Your task to perform on an android device: Go to privacy settings Image 0: 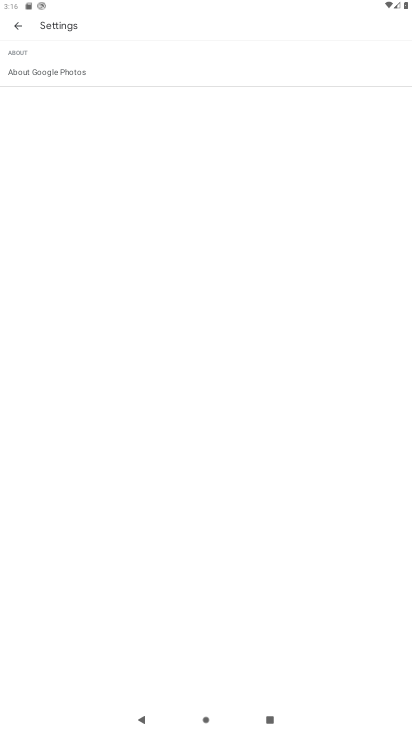
Step 0: press back button
Your task to perform on an android device: Go to privacy settings Image 1: 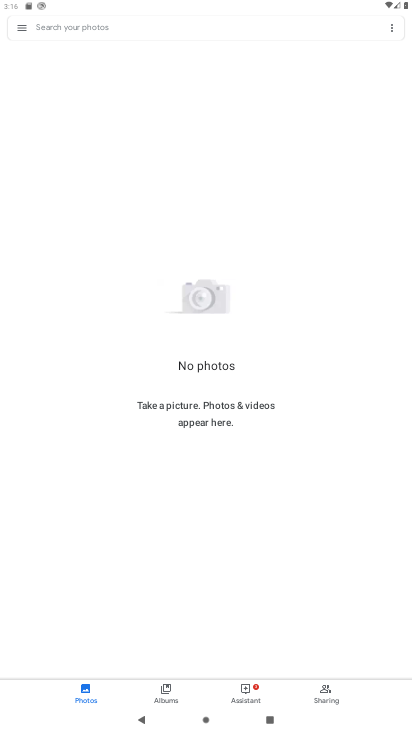
Step 1: press home button
Your task to perform on an android device: Go to privacy settings Image 2: 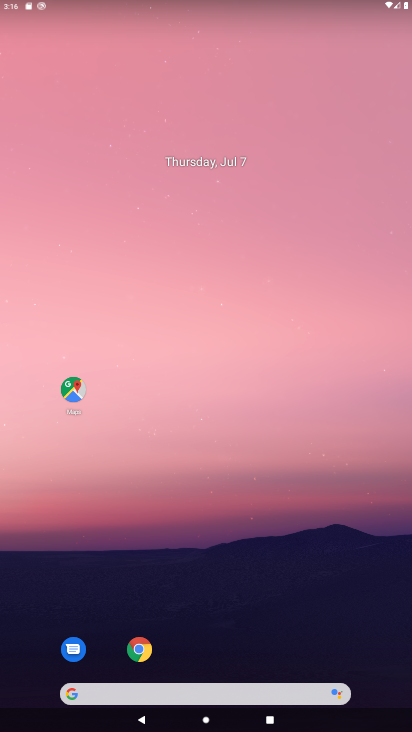
Step 2: drag from (181, 649) to (238, 2)
Your task to perform on an android device: Go to privacy settings Image 3: 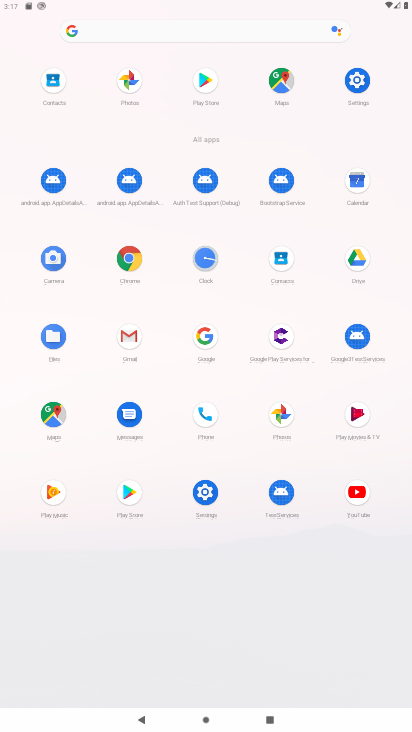
Step 3: click (357, 85)
Your task to perform on an android device: Go to privacy settings Image 4: 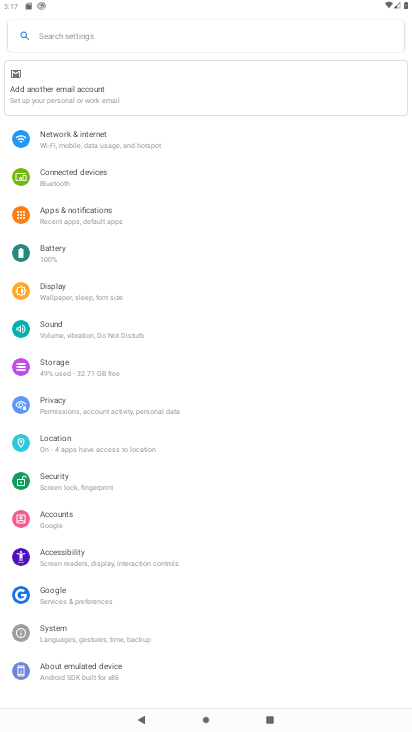
Step 4: click (85, 405)
Your task to perform on an android device: Go to privacy settings Image 5: 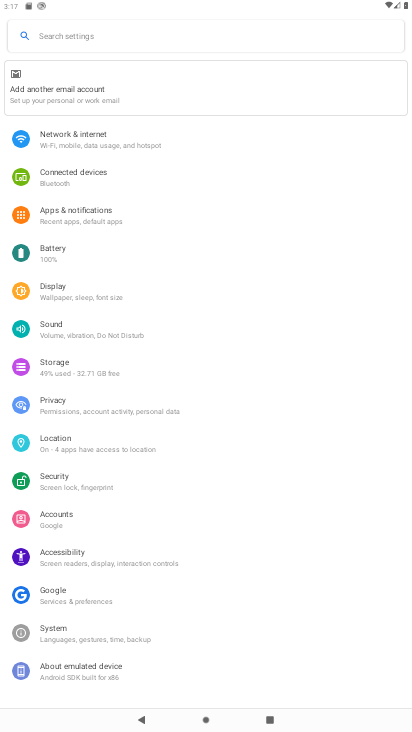
Step 5: task complete